Your task to perform on an android device: snooze an email in the gmail app Image 0: 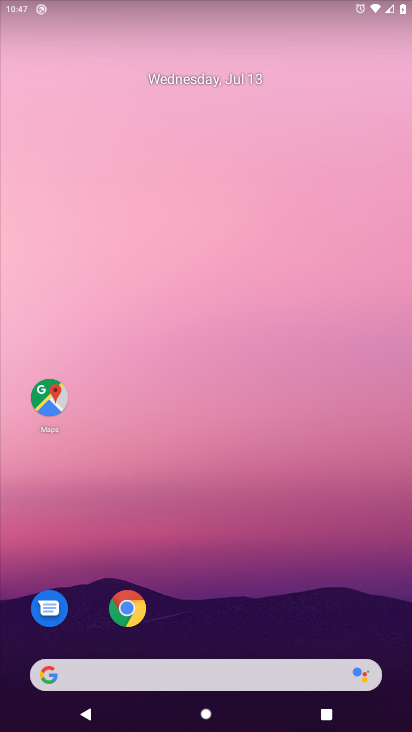
Step 0: drag from (262, 0) to (409, 375)
Your task to perform on an android device: snooze an email in the gmail app Image 1: 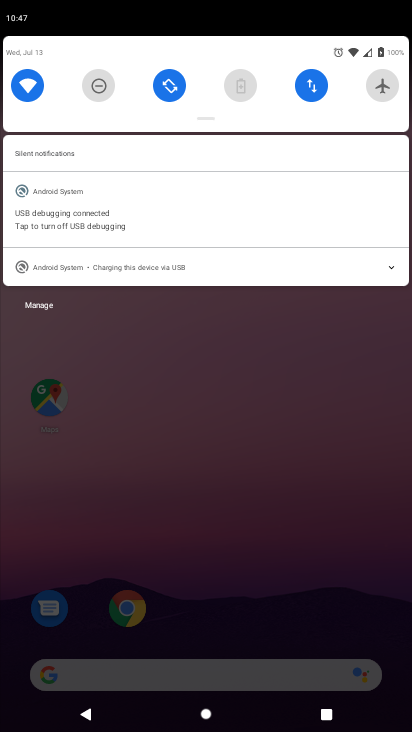
Step 1: click (323, 384)
Your task to perform on an android device: snooze an email in the gmail app Image 2: 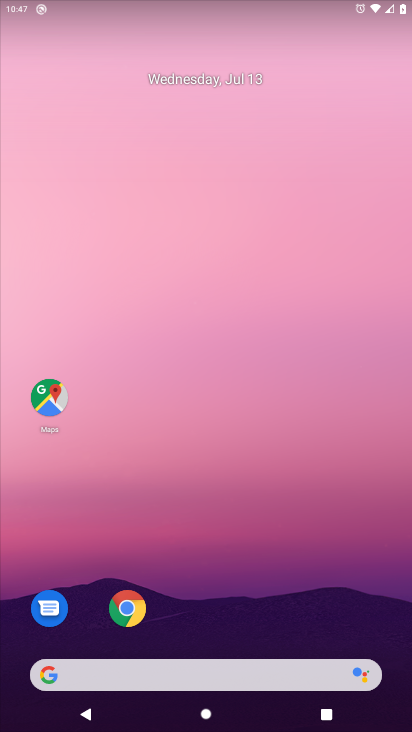
Step 2: drag from (152, 254) to (179, 123)
Your task to perform on an android device: snooze an email in the gmail app Image 3: 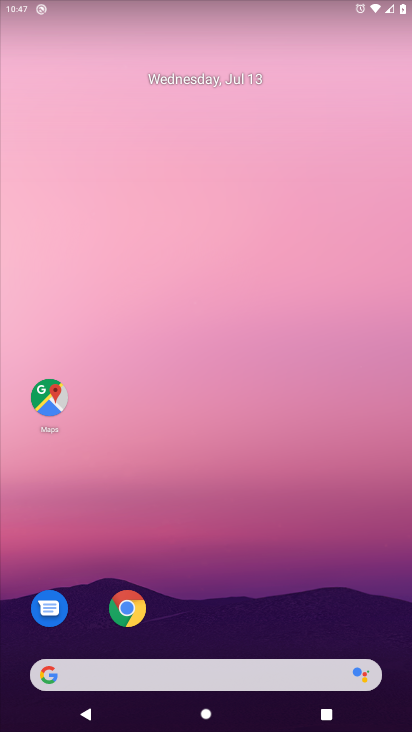
Step 3: drag from (53, 719) to (318, 129)
Your task to perform on an android device: snooze an email in the gmail app Image 4: 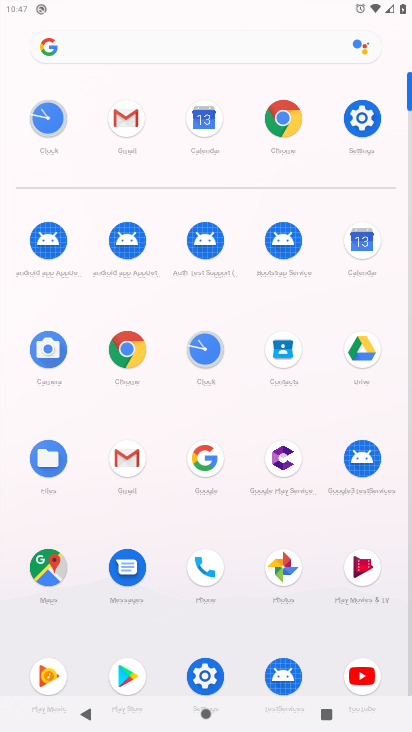
Step 4: click (110, 114)
Your task to perform on an android device: snooze an email in the gmail app Image 5: 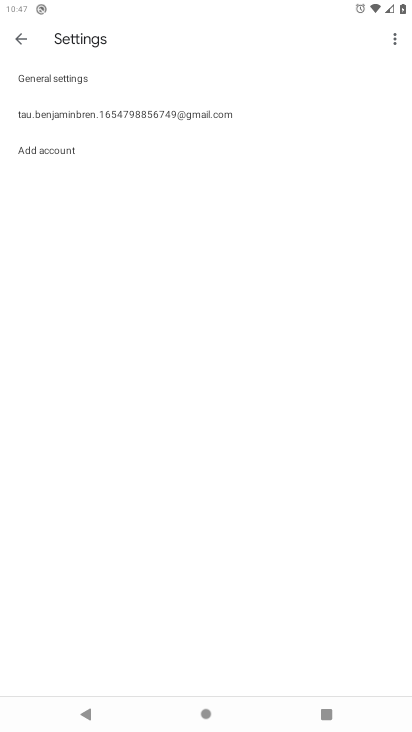
Step 5: click (19, 33)
Your task to perform on an android device: snooze an email in the gmail app Image 6: 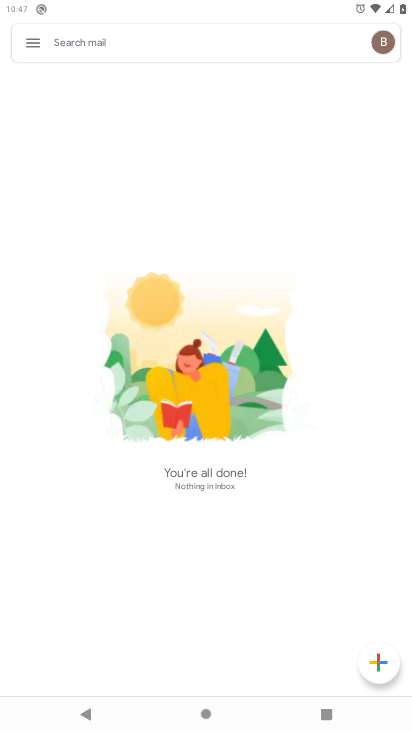
Step 6: click (21, 43)
Your task to perform on an android device: snooze an email in the gmail app Image 7: 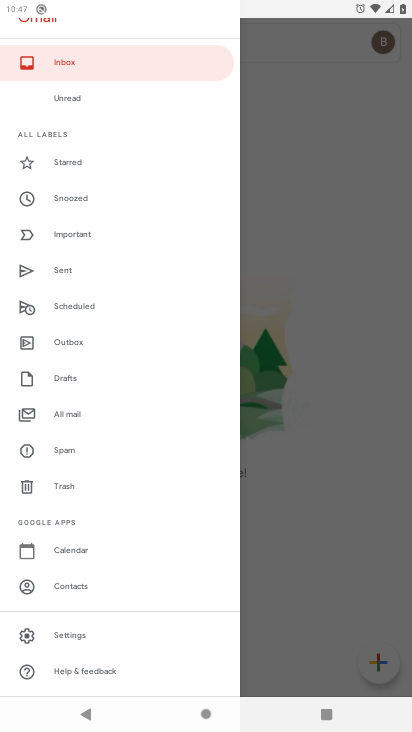
Step 7: click (94, 201)
Your task to perform on an android device: snooze an email in the gmail app Image 8: 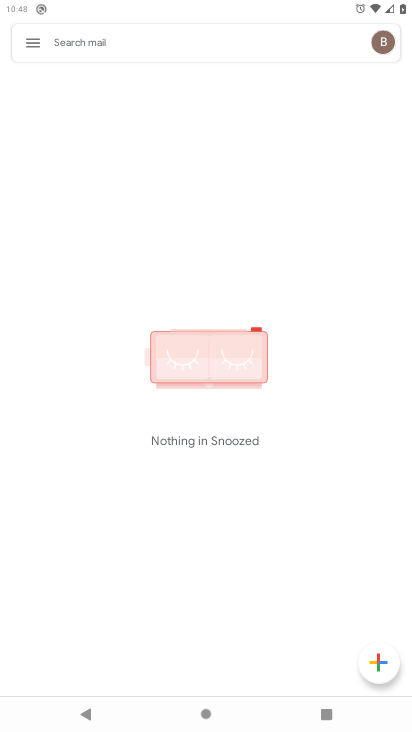
Step 8: task complete